Your task to perform on an android device: Open notification settings Image 0: 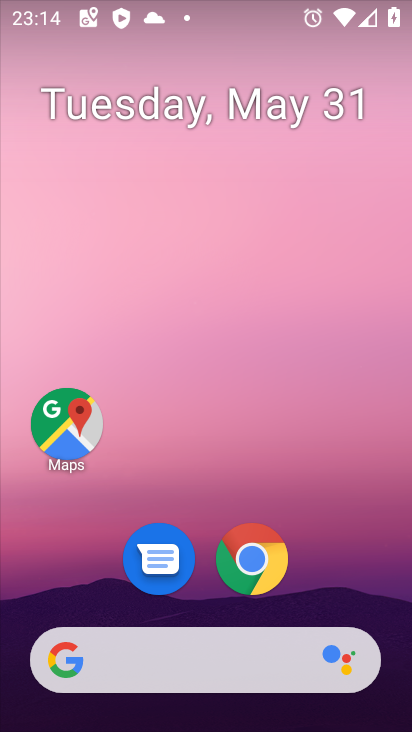
Step 0: drag from (317, 506) to (318, 1)
Your task to perform on an android device: Open notification settings Image 1: 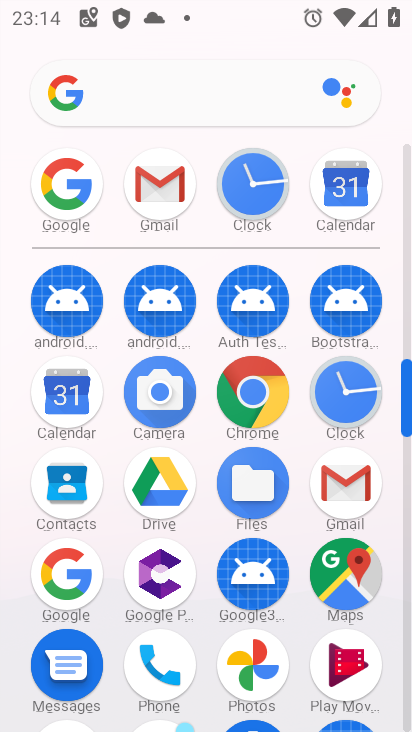
Step 1: drag from (203, 530) to (194, 162)
Your task to perform on an android device: Open notification settings Image 2: 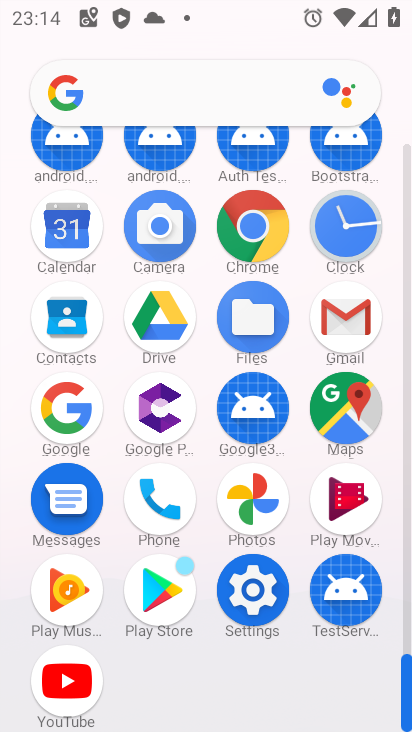
Step 2: click (253, 595)
Your task to perform on an android device: Open notification settings Image 3: 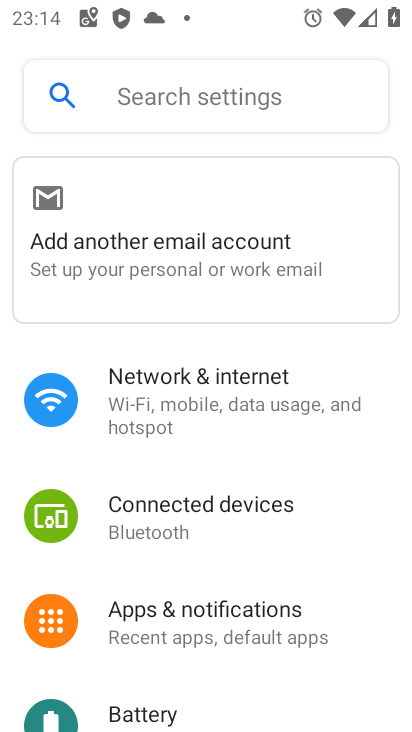
Step 3: click (227, 617)
Your task to perform on an android device: Open notification settings Image 4: 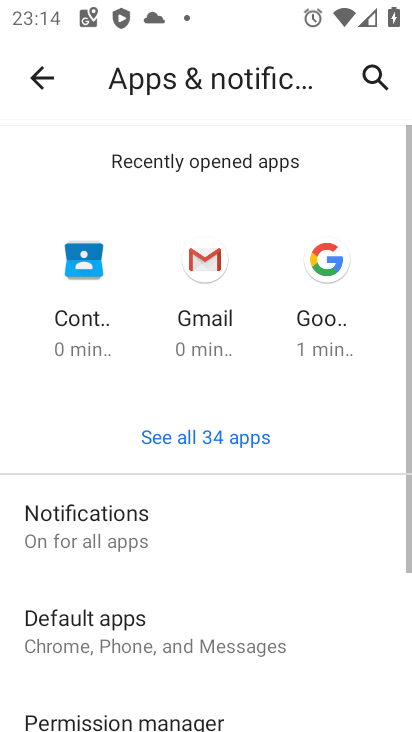
Step 4: drag from (226, 624) to (208, 411)
Your task to perform on an android device: Open notification settings Image 5: 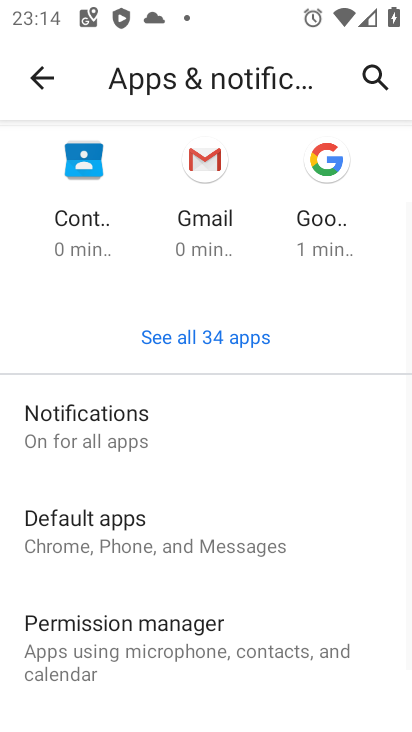
Step 5: click (92, 428)
Your task to perform on an android device: Open notification settings Image 6: 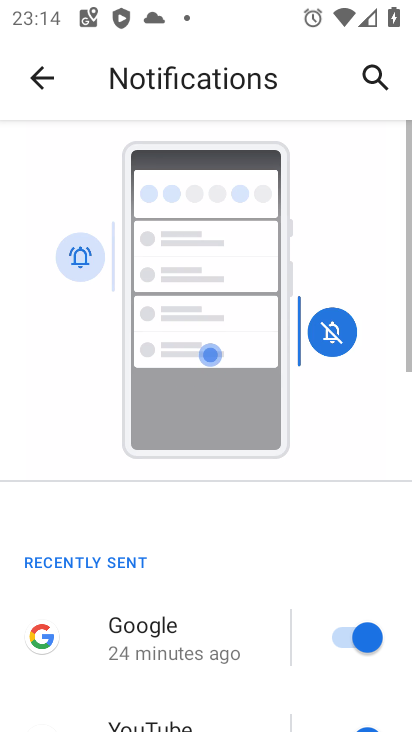
Step 6: drag from (162, 538) to (175, 3)
Your task to perform on an android device: Open notification settings Image 7: 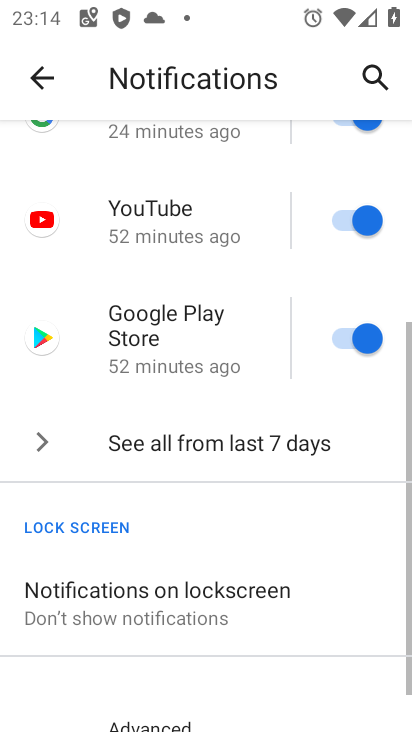
Step 7: drag from (203, 678) to (182, 202)
Your task to perform on an android device: Open notification settings Image 8: 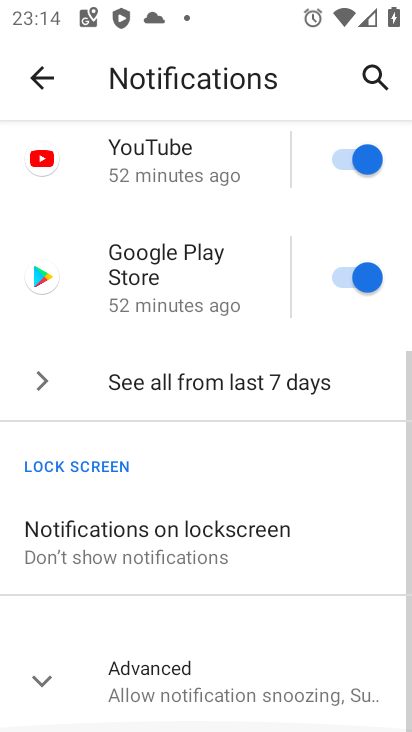
Step 8: click (135, 682)
Your task to perform on an android device: Open notification settings Image 9: 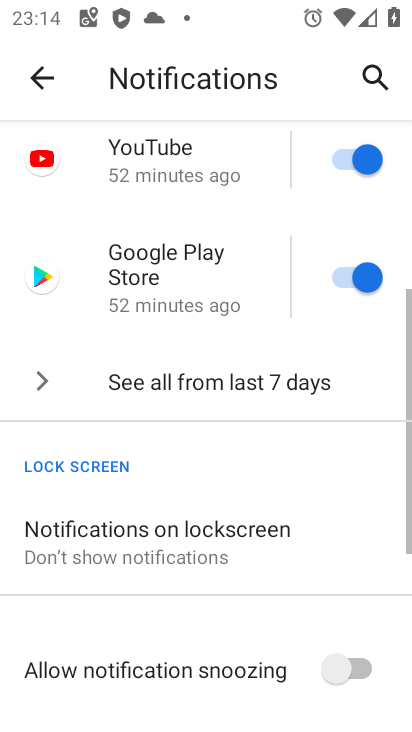
Step 9: drag from (324, 606) to (249, 219)
Your task to perform on an android device: Open notification settings Image 10: 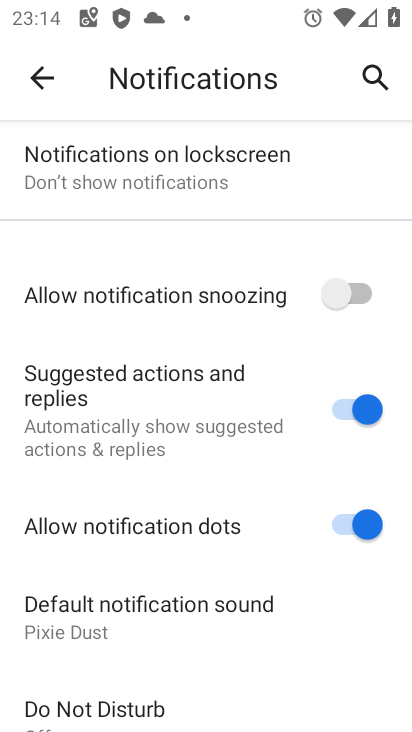
Step 10: click (332, 276)
Your task to perform on an android device: Open notification settings Image 11: 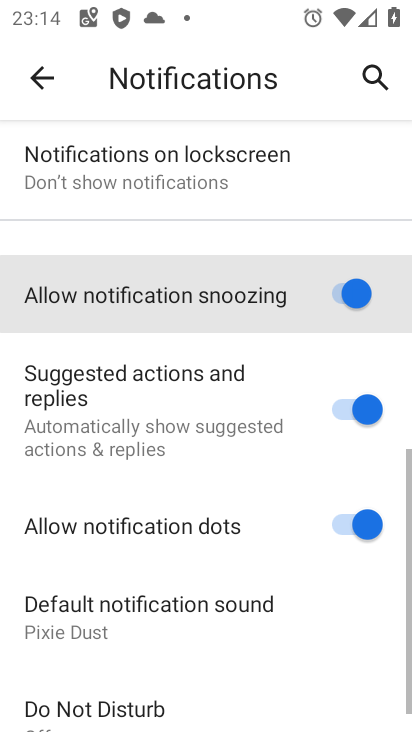
Step 11: click (358, 416)
Your task to perform on an android device: Open notification settings Image 12: 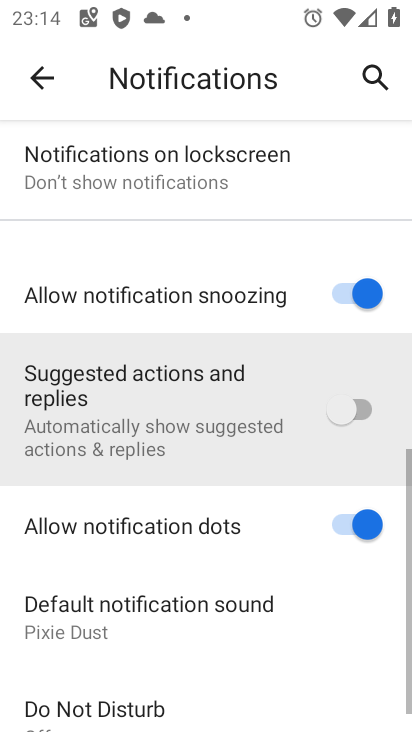
Step 12: click (355, 530)
Your task to perform on an android device: Open notification settings Image 13: 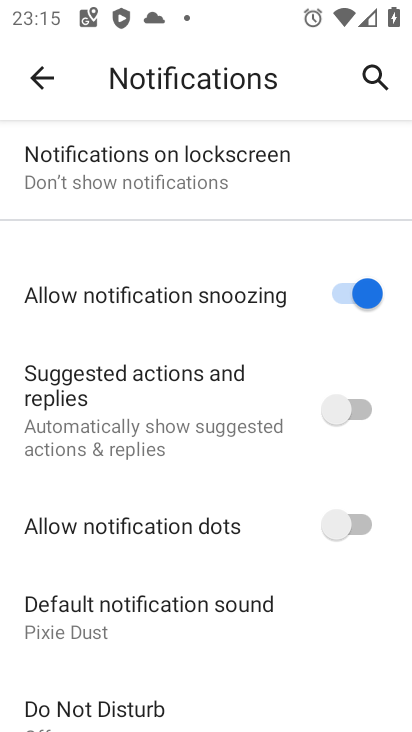
Step 13: task complete